Your task to perform on an android device: Show the shopping cart on amazon. Search for "jbl charge 4" on amazon, select the first entry, add it to the cart, then select checkout. Image 0: 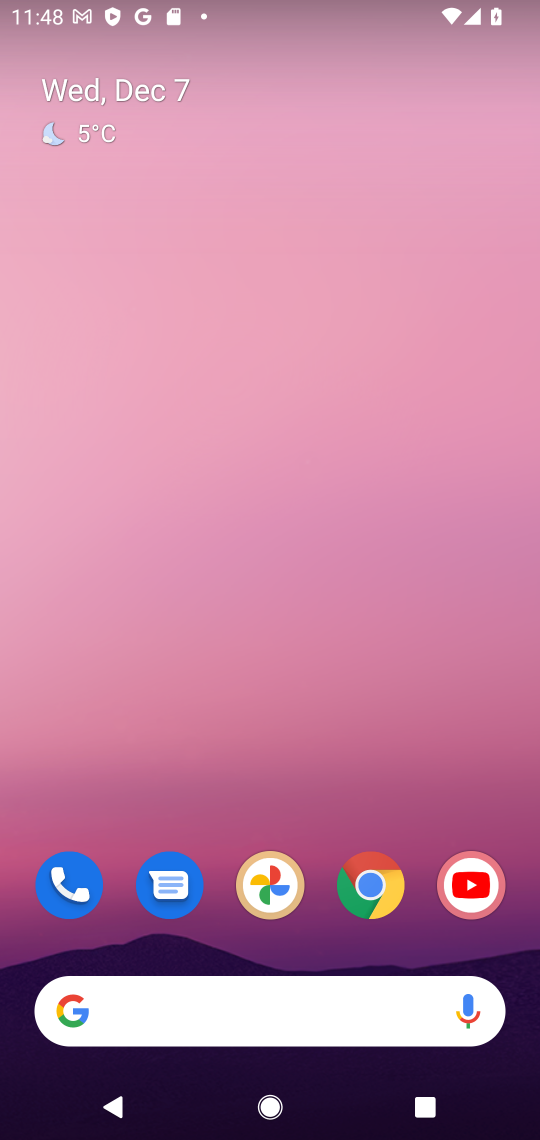
Step 0: task complete